Your task to perform on an android device: turn on translation in the chrome app Image 0: 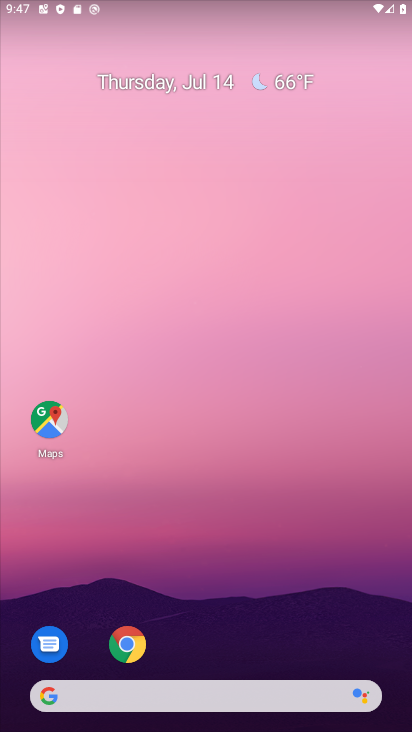
Step 0: drag from (292, 677) to (392, 40)
Your task to perform on an android device: turn on translation in the chrome app Image 1: 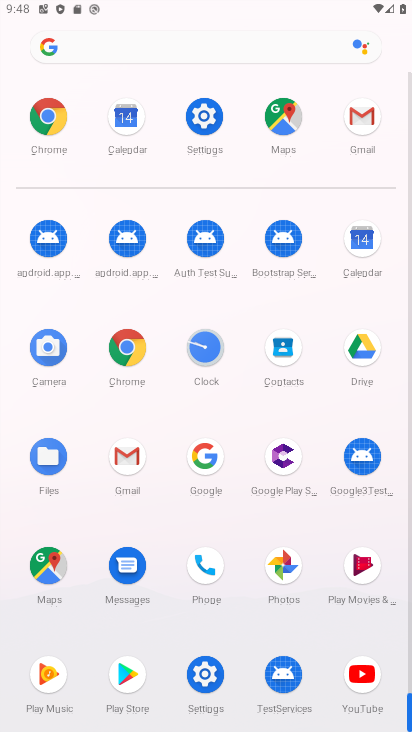
Step 1: click (53, 113)
Your task to perform on an android device: turn on translation in the chrome app Image 2: 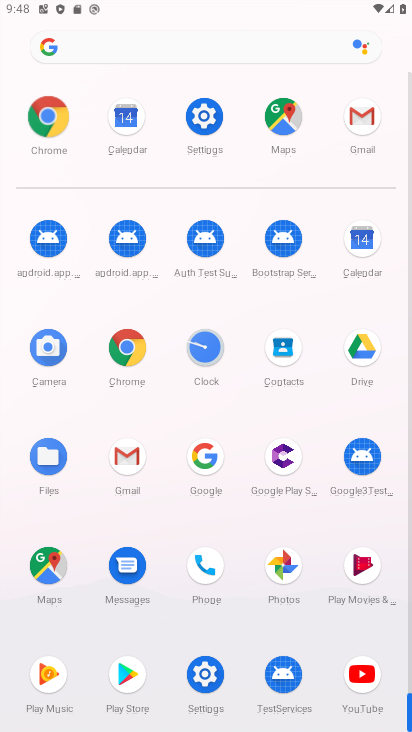
Step 2: click (53, 113)
Your task to perform on an android device: turn on translation in the chrome app Image 3: 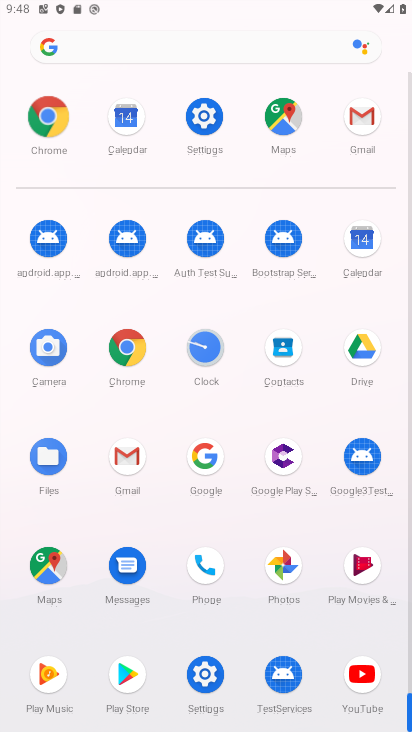
Step 3: click (53, 114)
Your task to perform on an android device: turn on translation in the chrome app Image 4: 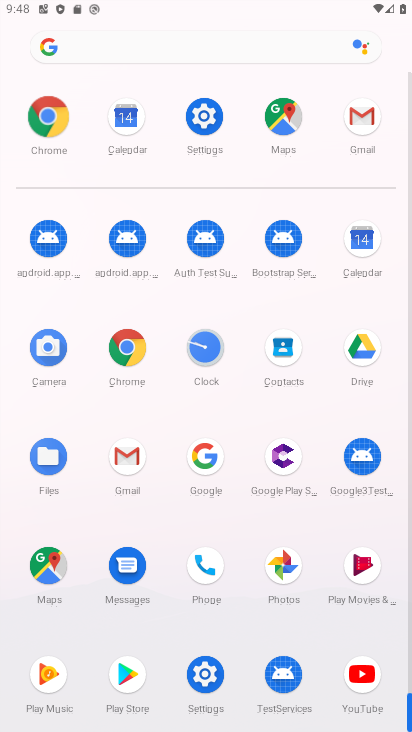
Step 4: click (53, 115)
Your task to perform on an android device: turn on translation in the chrome app Image 5: 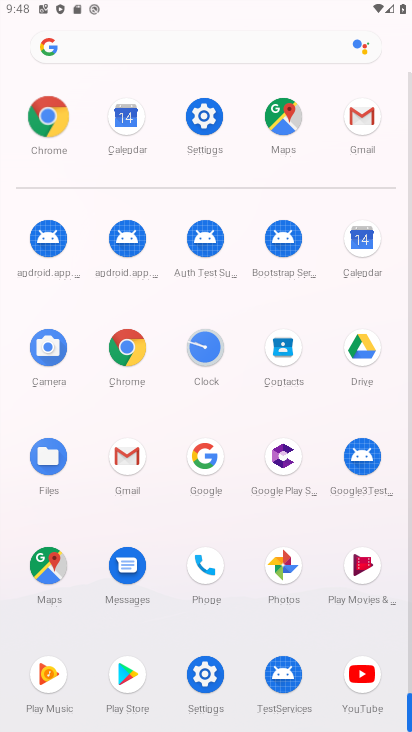
Step 5: click (53, 115)
Your task to perform on an android device: turn on translation in the chrome app Image 6: 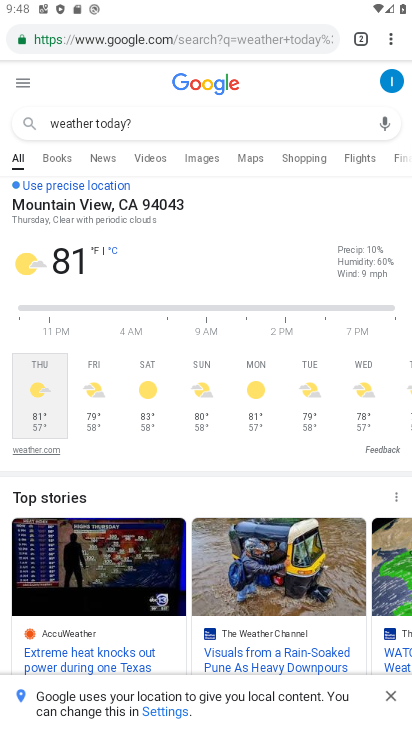
Step 6: click (53, 115)
Your task to perform on an android device: turn on translation in the chrome app Image 7: 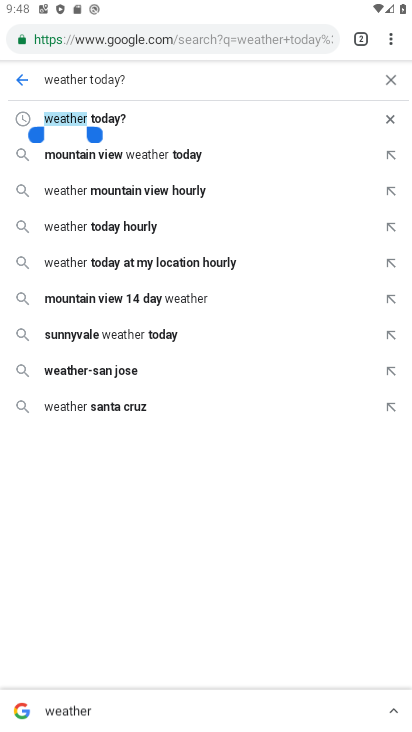
Step 7: drag from (390, 42) to (239, 438)
Your task to perform on an android device: turn on translation in the chrome app Image 8: 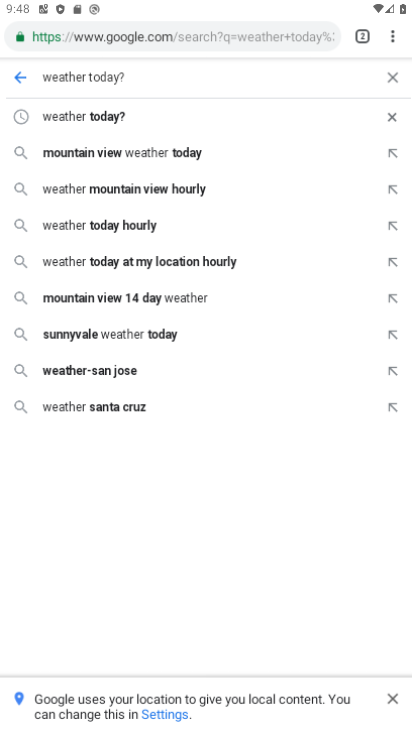
Step 8: click (238, 438)
Your task to perform on an android device: turn on translation in the chrome app Image 9: 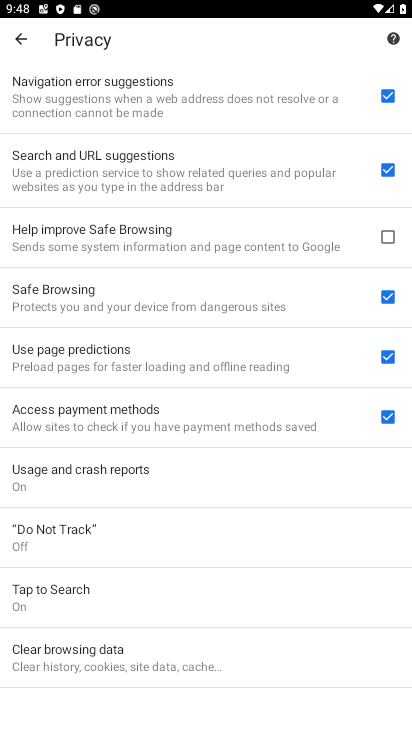
Step 9: click (21, 39)
Your task to perform on an android device: turn on translation in the chrome app Image 10: 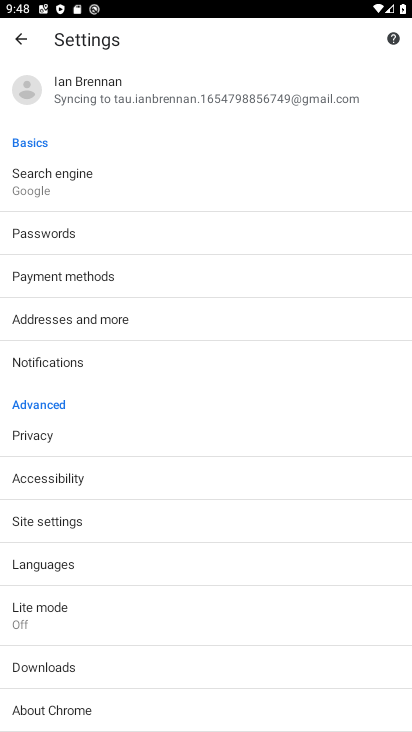
Step 10: click (44, 564)
Your task to perform on an android device: turn on translation in the chrome app Image 11: 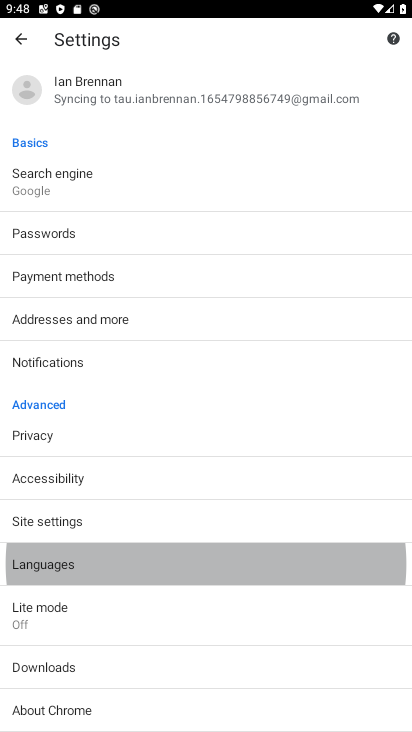
Step 11: click (42, 564)
Your task to perform on an android device: turn on translation in the chrome app Image 12: 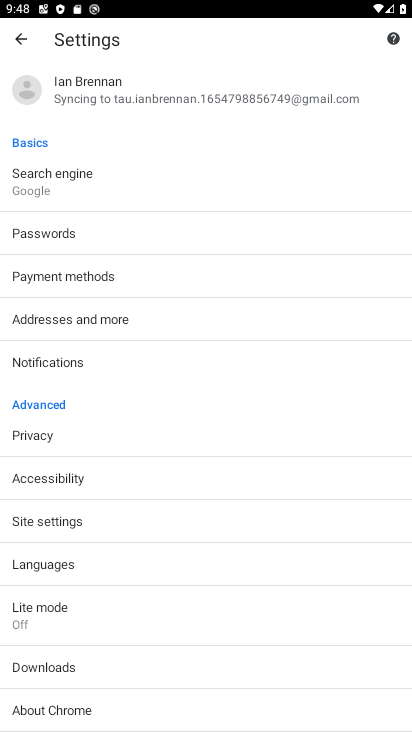
Step 12: click (42, 564)
Your task to perform on an android device: turn on translation in the chrome app Image 13: 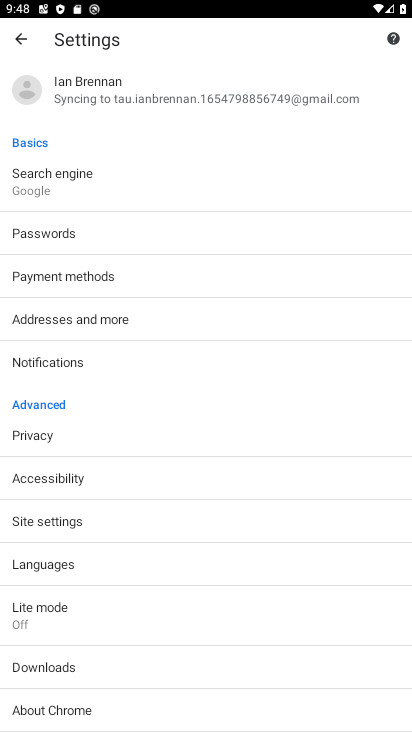
Step 13: click (41, 564)
Your task to perform on an android device: turn on translation in the chrome app Image 14: 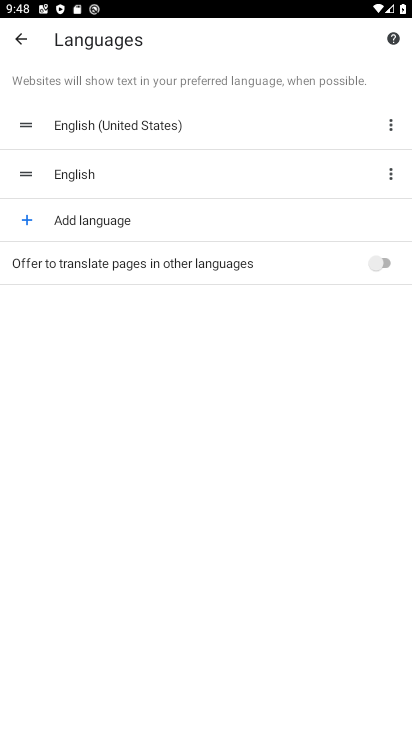
Step 14: click (386, 255)
Your task to perform on an android device: turn on translation in the chrome app Image 15: 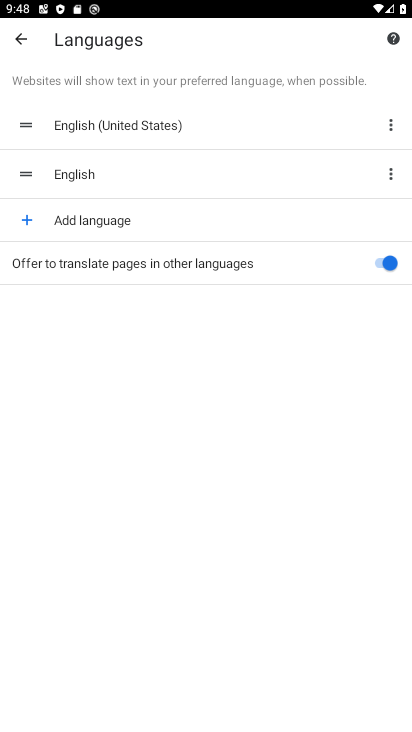
Step 15: task complete